Your task to perform on an android device: change timer sound Image 0: 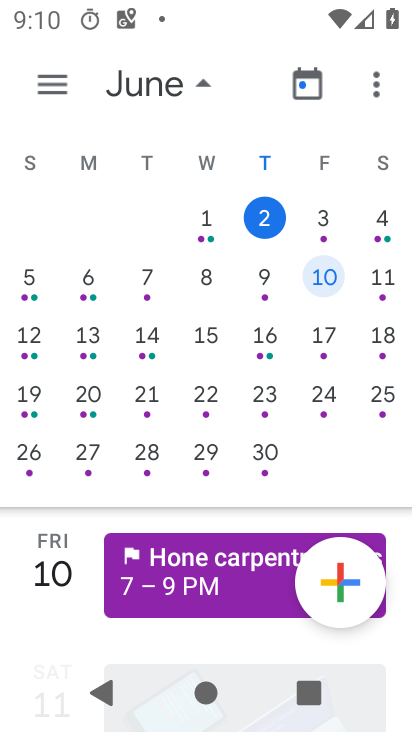
Step 0: press home button
Your task to perform on an android device: change timer sound Image 1: 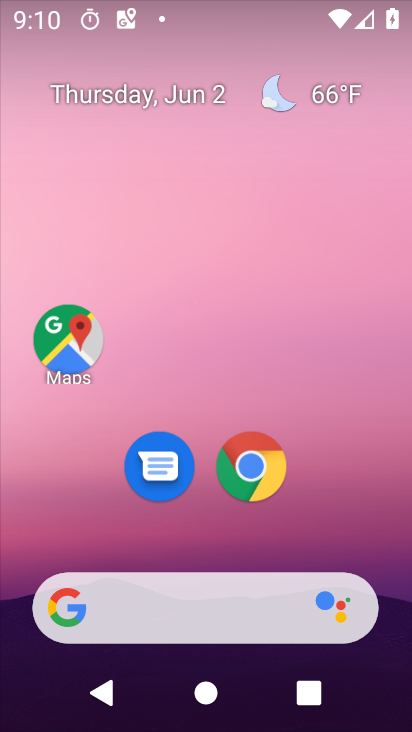
Step 1: click (248, 454)
Your task to perform on an android device: change timer sound Image 2: 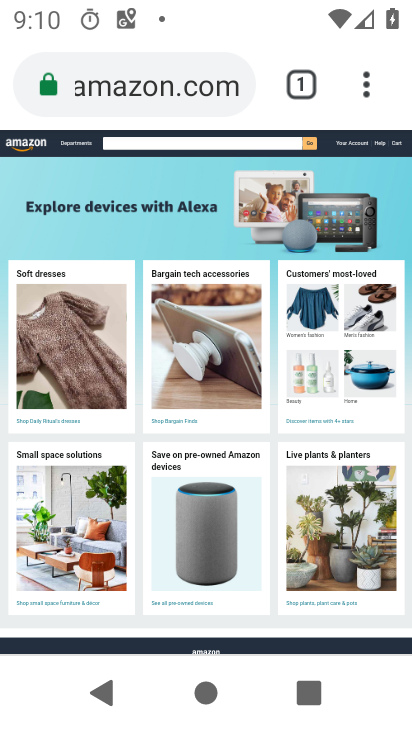
Step 2: click (294, 89)
Your task to perform on an android device: change timer sound Image 3: 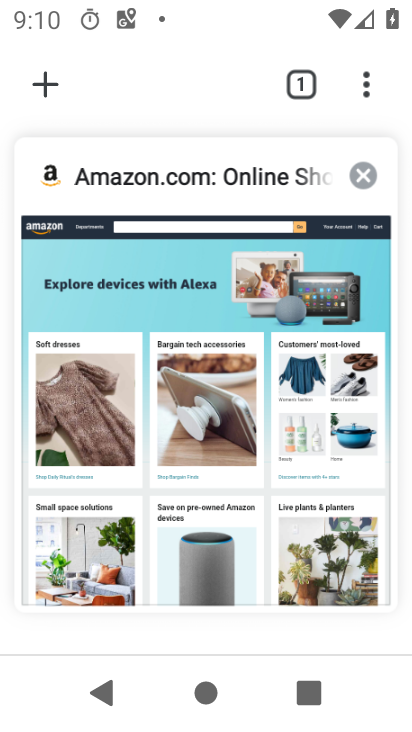
Step 3: click (357, 175)
Your task to perform on an android device: change timer sound Image 4: 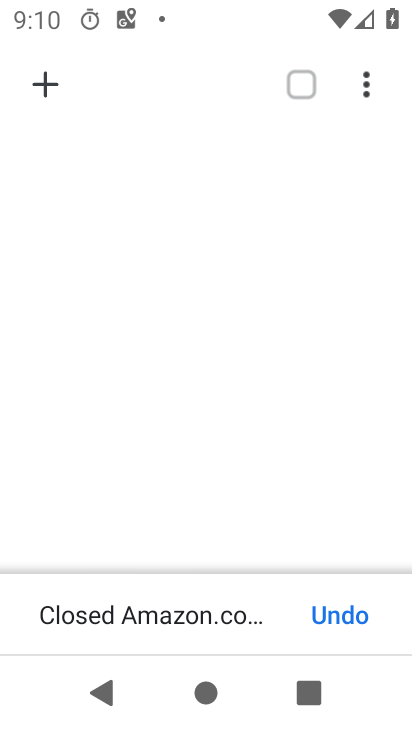
Step 4: click (44, 84)
Your task to perform on an android device: change timer sound Image 5: 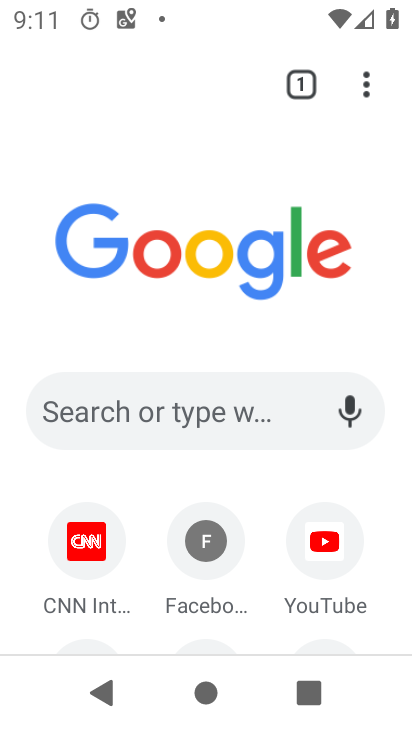
Step 5: drag from (22, 604) to (282, 237)
Your task to perform on an android device: change timer sound Image 6: 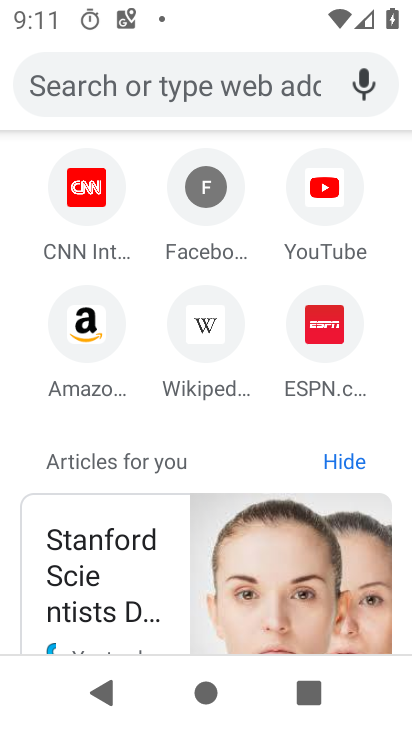
Step 6: press home button
Your task to perform on an android device: change timer sound Image 7: 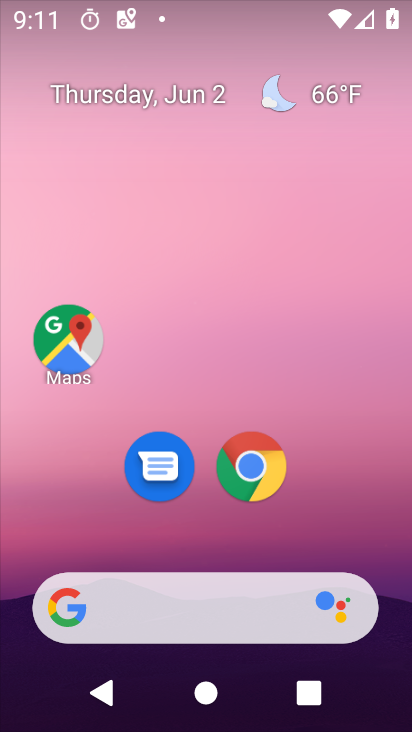
Step 7: drag from (83, 587) to (310, 224)
Your task to perform on an android device: change timer sound Image 8: 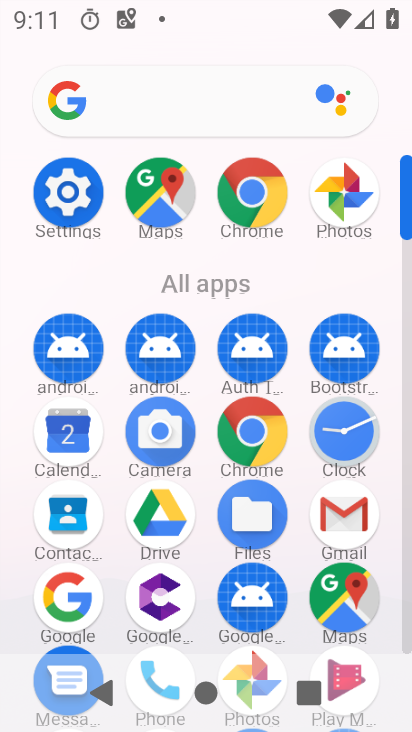
Step 8: click (74, 188)
Your task to perform on an android device: change timer sound Image 9: 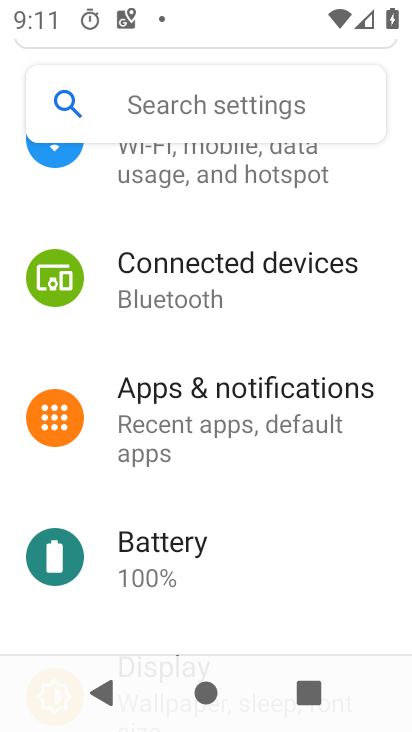
Step 9: drag from (18, 605) to (305, 200)
Your task to perform on an android device: change timer sound Image 10: 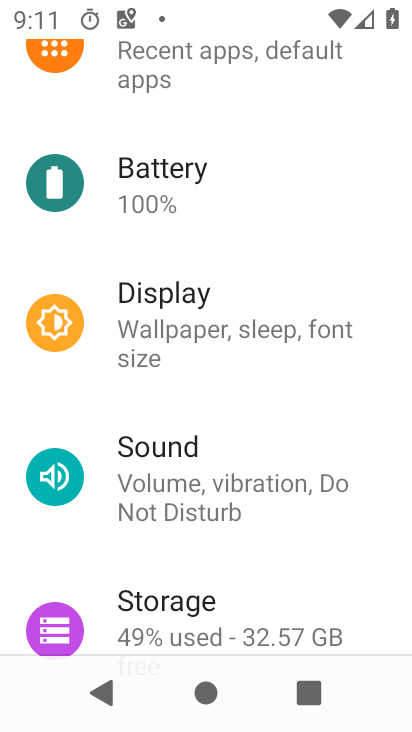
Step 10: click (199, 463)
Your task to perform on an android device: change timer sound Image 11: 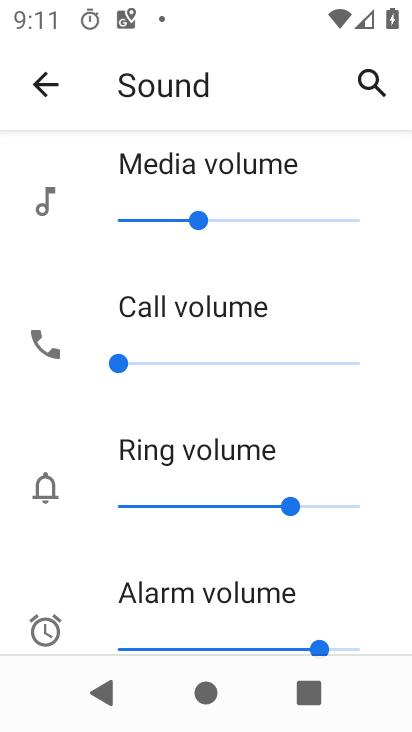
Step 11: task complete